Your task to perform on an android device: What's the weather going to be this weekend? Image 0: 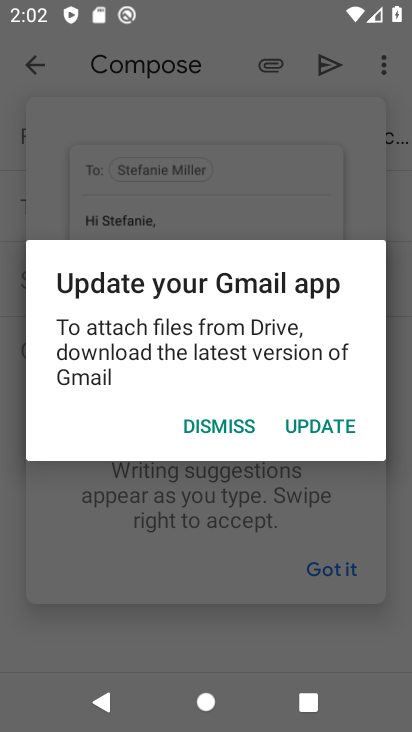
Step 0: press home button
Your task to perform on an android device: What's the weather going to be this weekend? Image 1: 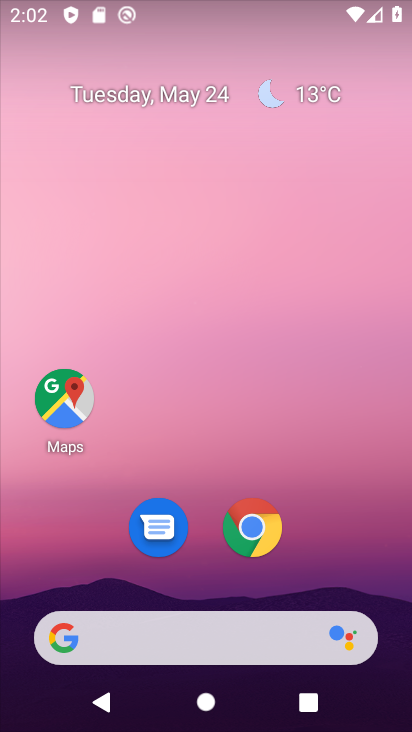
Step 1: click (233, 628)
Your task to perform on an android device: What's the weather going to be this weekend? Image 2: 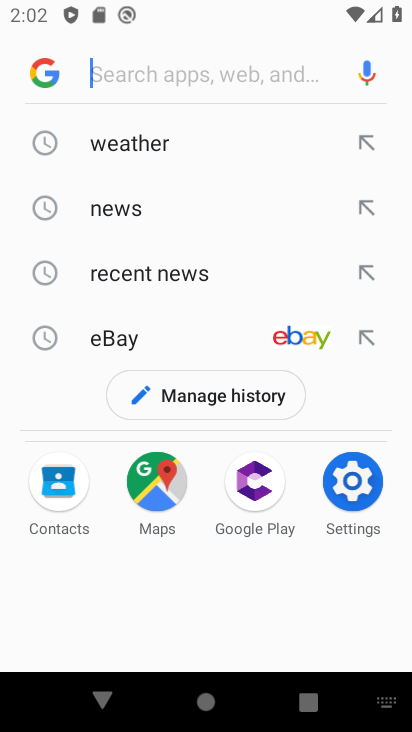
Step 2: type "what's the weather going to be this weekend"
Your task to perform on an android device: What's the weather going to be this weekend? Image 3: 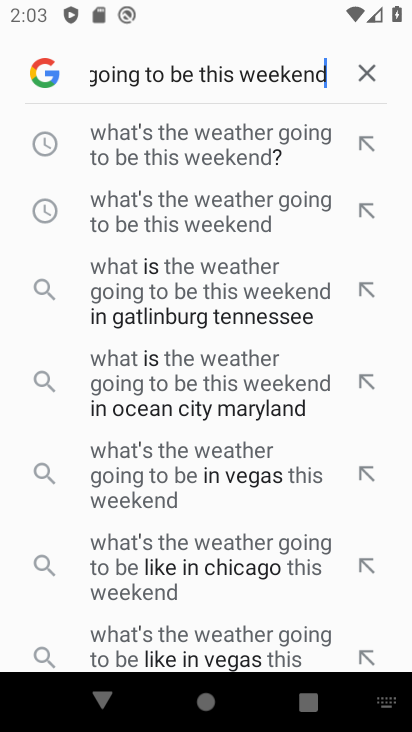
Step 3: click (249, 149)
Your task to perform on an android device: What's the weather going to be this weekend? Image 4: 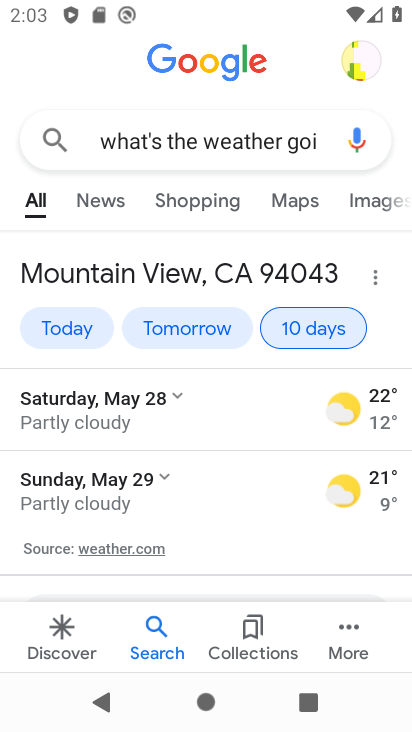
Step 4: task complete